Your task to perform on an android device: toggle javascript in the chrome app Image 0: 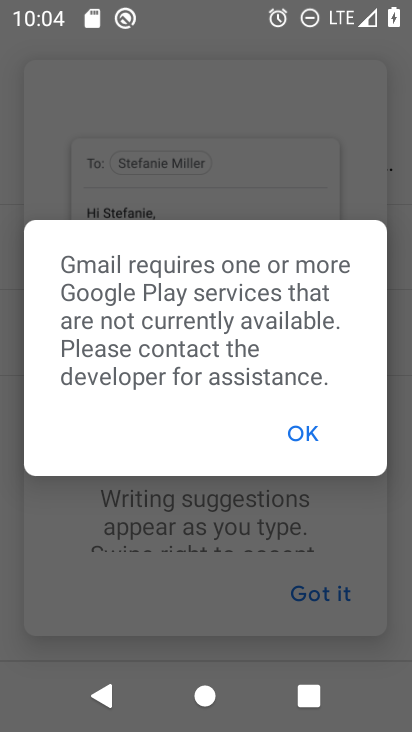
Step 0: press home button
Your task to perform on an android device: toggle javascript in the chrome app Image 1: 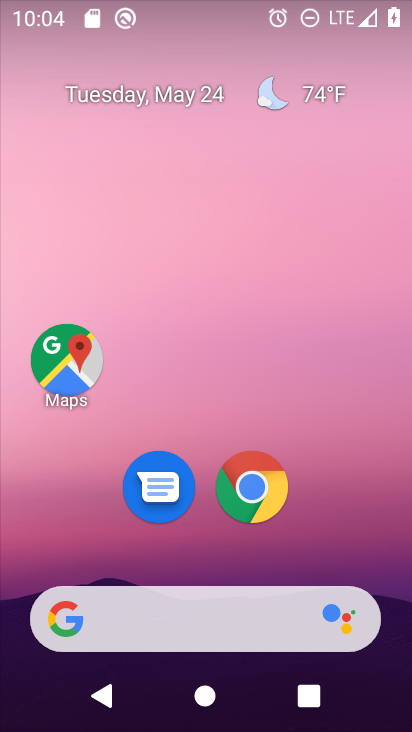
Step 1: click (258, 491)
Your task to perform on an android device: toggle javascript in the chrome app Image 2: 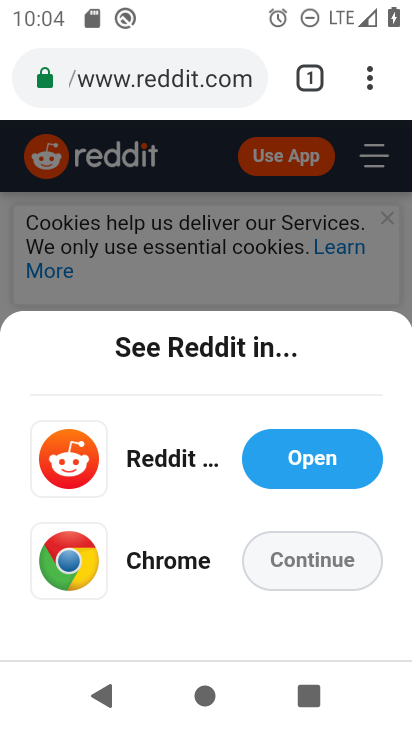
Step 2: click (369, 79)
Your task to perform on an android device: toggle javascript in the chrome app Image 3: 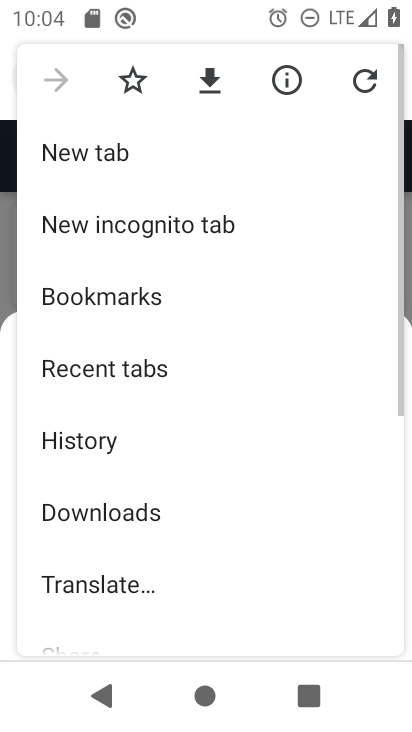
Step 3: drag from (194, 533) to (185, 149)
Your task to perform on an android device: toggle javascript in the chrome app Image 4: 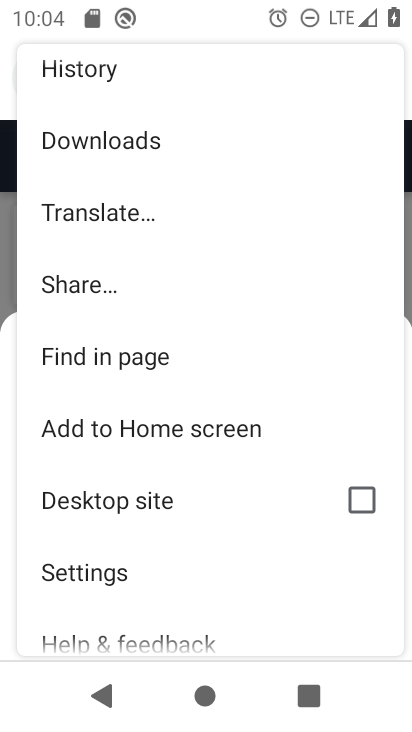
Step 4: click (120, 581)
Your task to perform on an android device: toggle javascript in the chrome app Image 5: 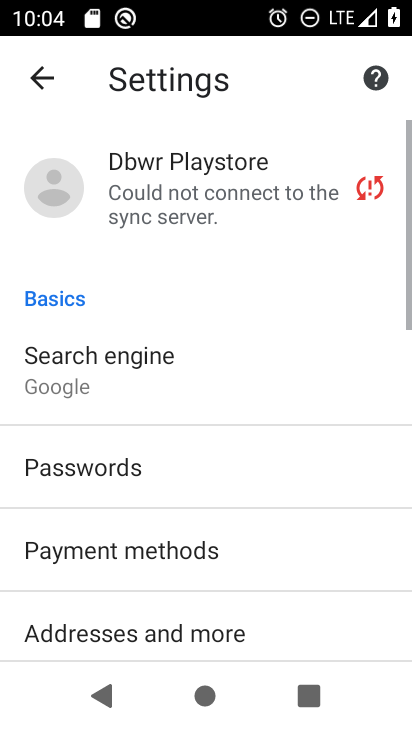
Step 5: drag from (130, 584) to (132, 161)
Your task to perform on an android device: toggle javascript in the chrome app Image 6: 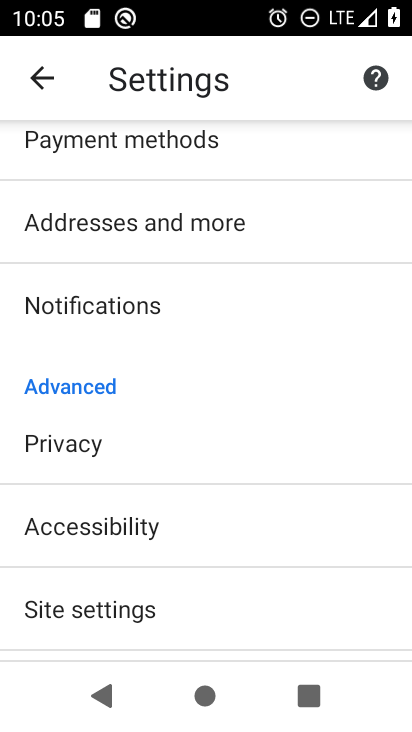
Step 6: drag from (165, 567) to (156, 313)
Your task to perform on an android device: toggle javascript in the chrome app Image 7: 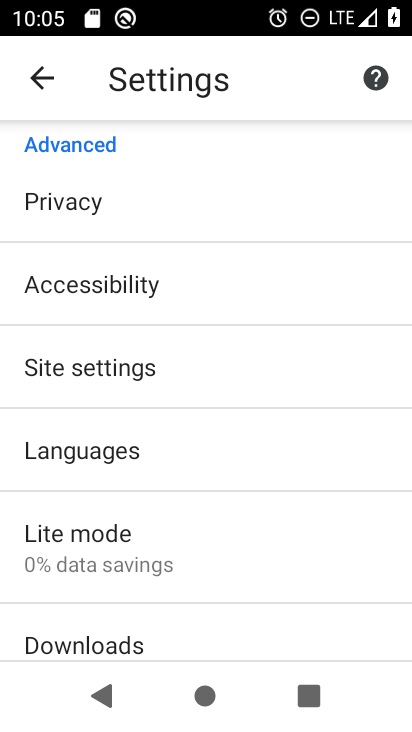
Step 7: click (109, 367)
Your task to perform on an android device: toggle javascript in the chrome app Image 8: 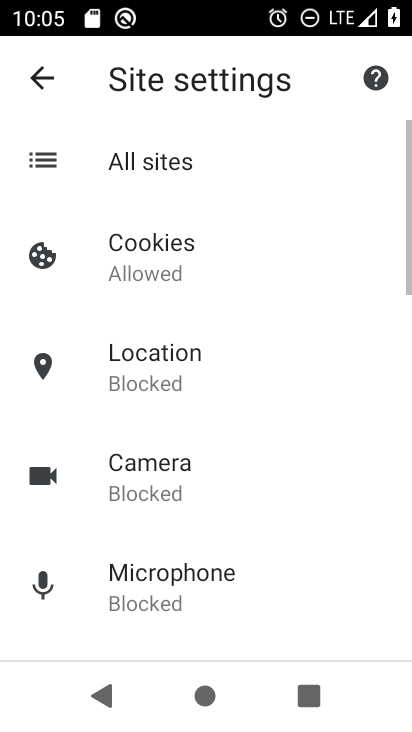
Step 8: drag from (260, 550) to (239, 185)
Your task to perform on an android device: toggle javascript in the chrome app Image 9: 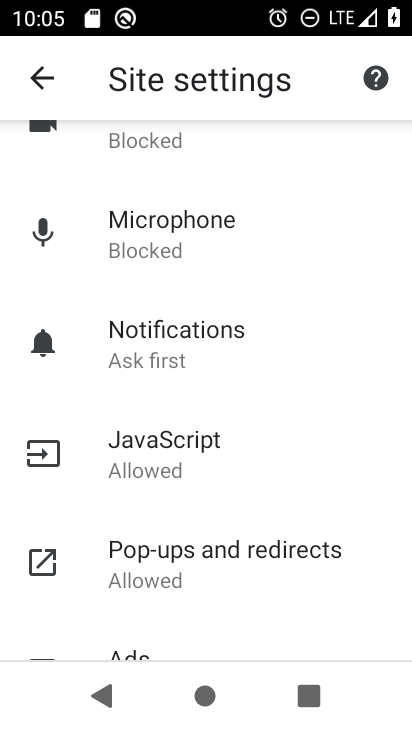
Step 9: click (154, 446)
Your task to perform on an android device: toggle javascript in the chrome app Image 10: 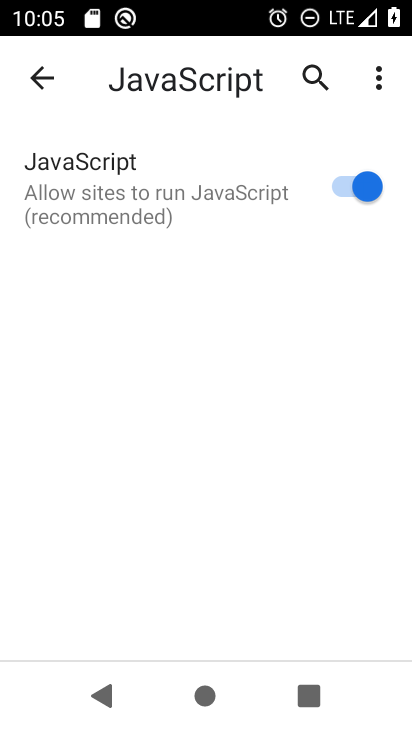
Step 10: click (358, 195)
Your task to perform on an android device: toggle javascript in the chrome app Image 11: 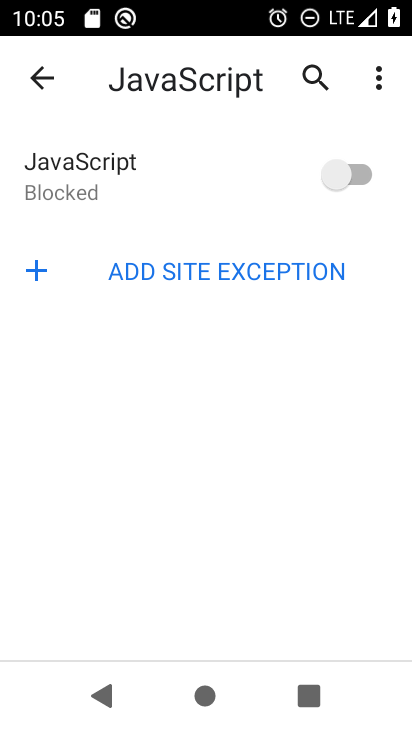
Step 11: task complete